Your task to perform on an android device: choose inbox layout in the gmail app Image 0: 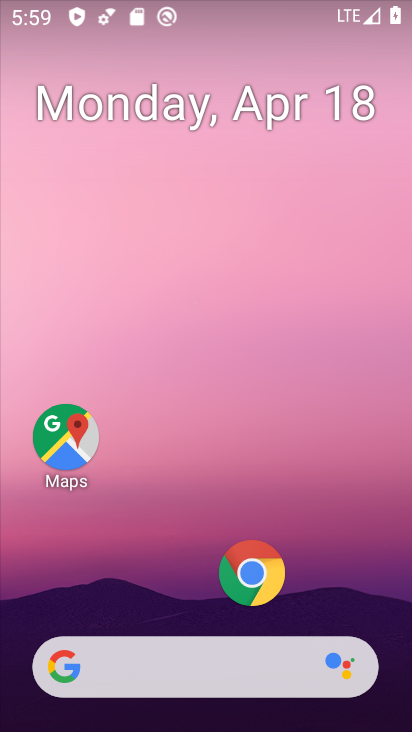
Step 0: drag from (164, 559) to (258, 195)
Your task to perform on an android device: choose inbox layout in the gmail app Image 1: 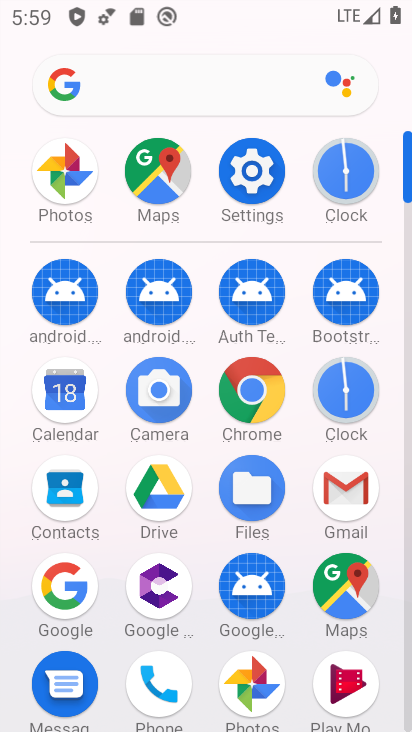
Step 1: click (346, 487)
Your task to perform on an android device: choose inbox layout in the gmail app Image 2: 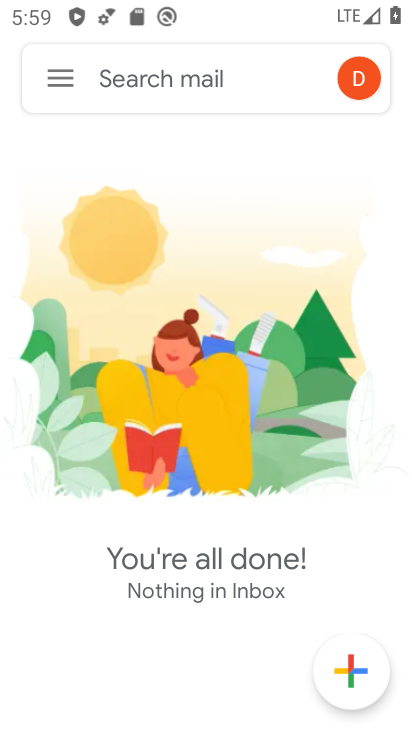
Step 2: click (50, 82)
Your task to perform on an android device: choose inbox layout in the gmail app Image 3: 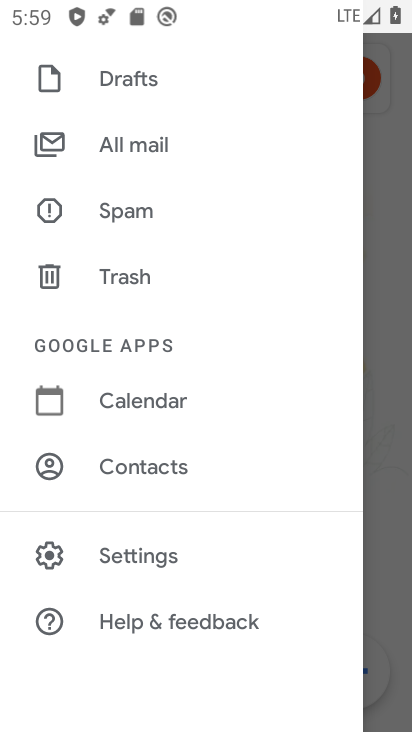
Step 3: click (131, 557)
Your task to perform on an android device: choose inbox layout in the gmail app Image 4: 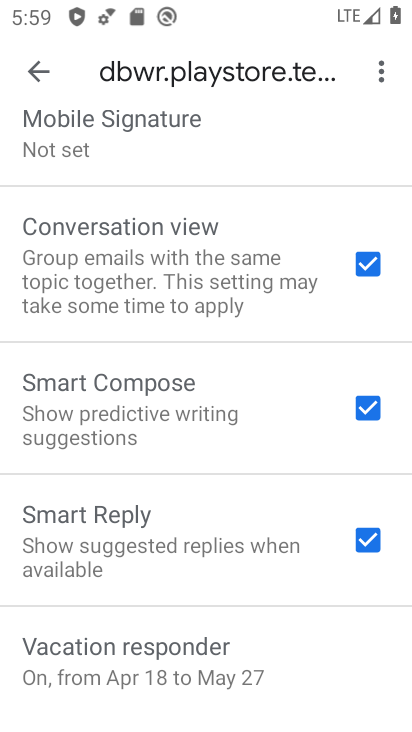
Step 4: drag from (189, 254) to (140, 717)
Your task to perform on an android device: choose inbox layout in the gmail app Image 5: 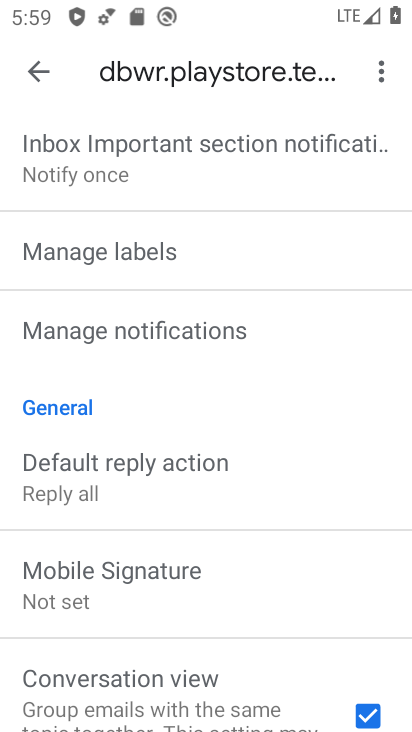
Step 5: drag from (240, 296) to (223, 727)
Your task to perform on an android device: choose inbox layout in the gmail app Image 6: 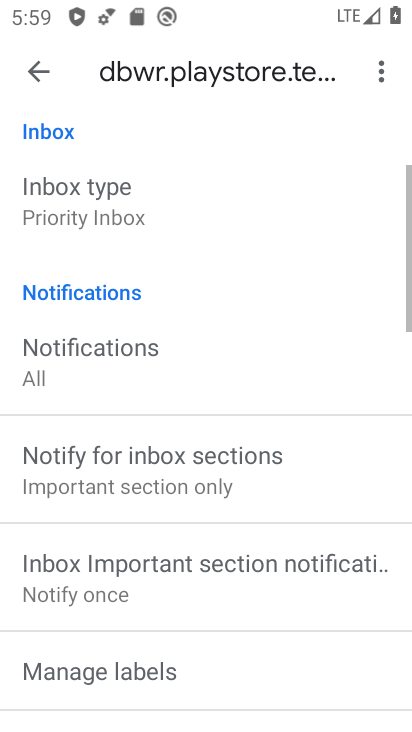
Step 6: drag from (230, 258) to (182, 617)
Your task to perform on an android device: choose inbox layout in the gmail app Image 7: 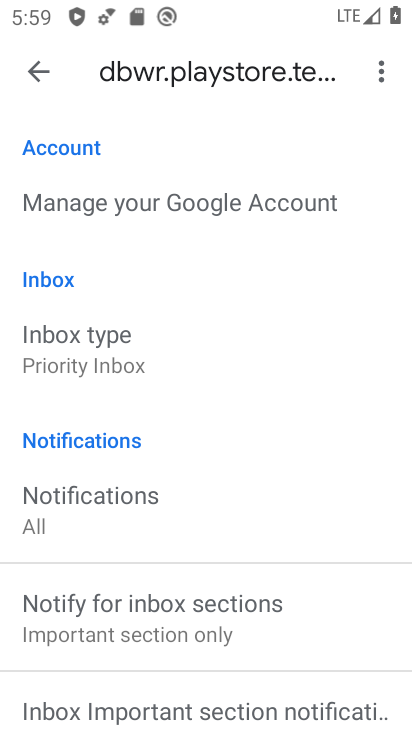
Step 7: click (104, 356)
Your task to perform on an android device: choose inbox layout in the gmail app Image 8: 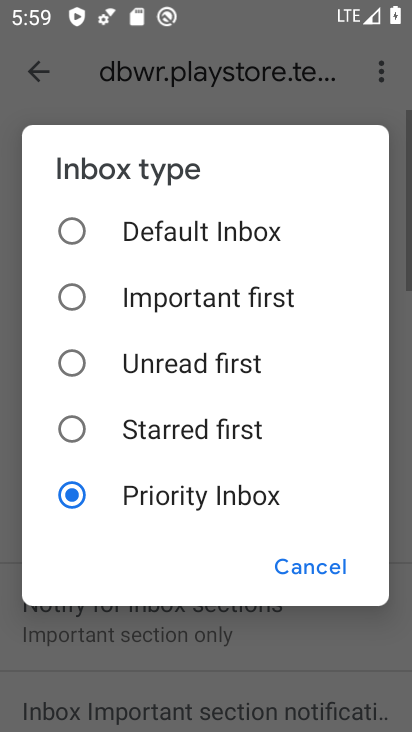
Step 8: click (74, 232)
Your task to perform on an android device: choose inbox layout in the gmail app Image 9: 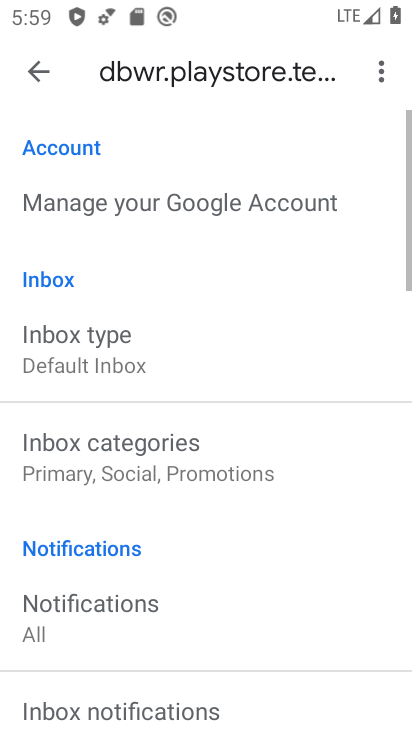
Step 9: task complete